Your task to perform on an android device: open app "Microsoft Authenticator" (install if not already installed) and enter user name: "Cornell@yahoo.com" and password: "bothersome" Image 0: 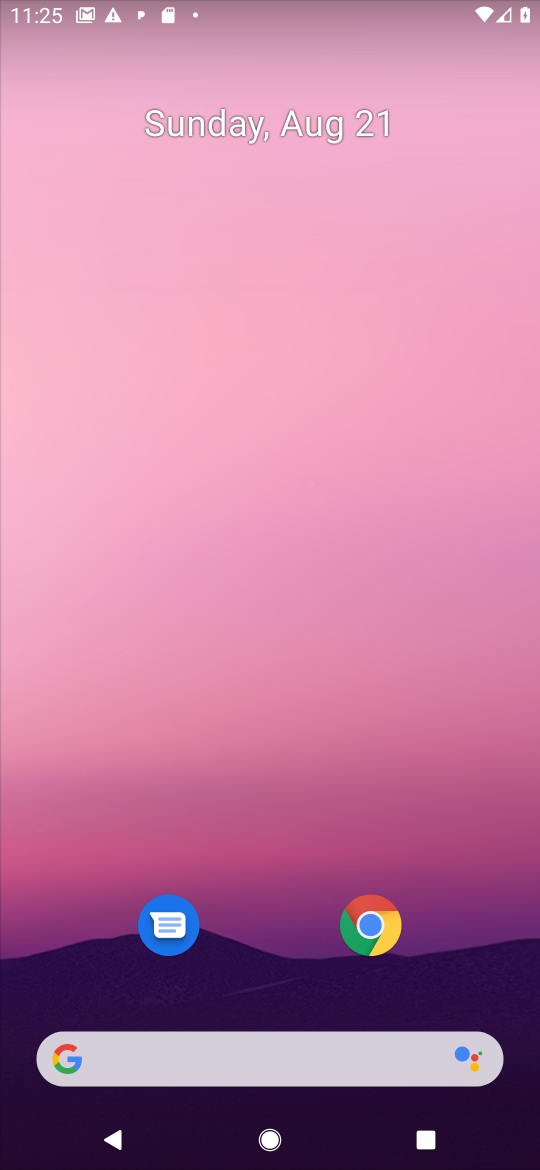
Step 0: drag from (251, 997) to (457, 159)
Your task to perform on an android device: open app "Microsoft Authenticator" (install if not already installed) and enter user name: "Cornell@yahoo.com" and password: "bothersome" Image 1: 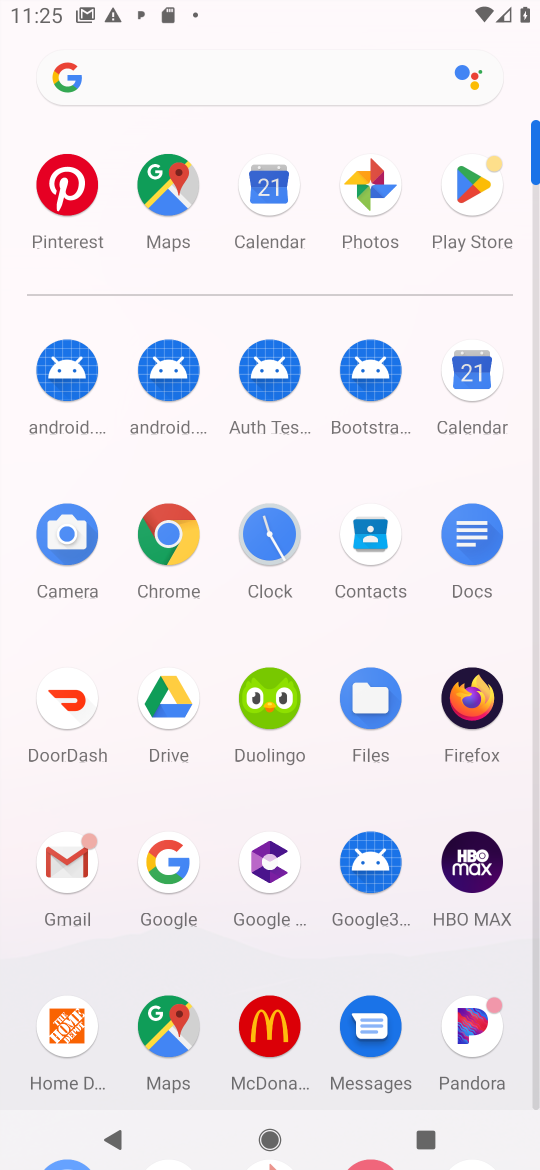
Step 1: click (457, 186)
Your task to perform on an android device: open app "Microsoft Authenticator" (install if not already installed) and enter user name: "Cornell@yahoo.com" and password: "bothersome" Image 2: 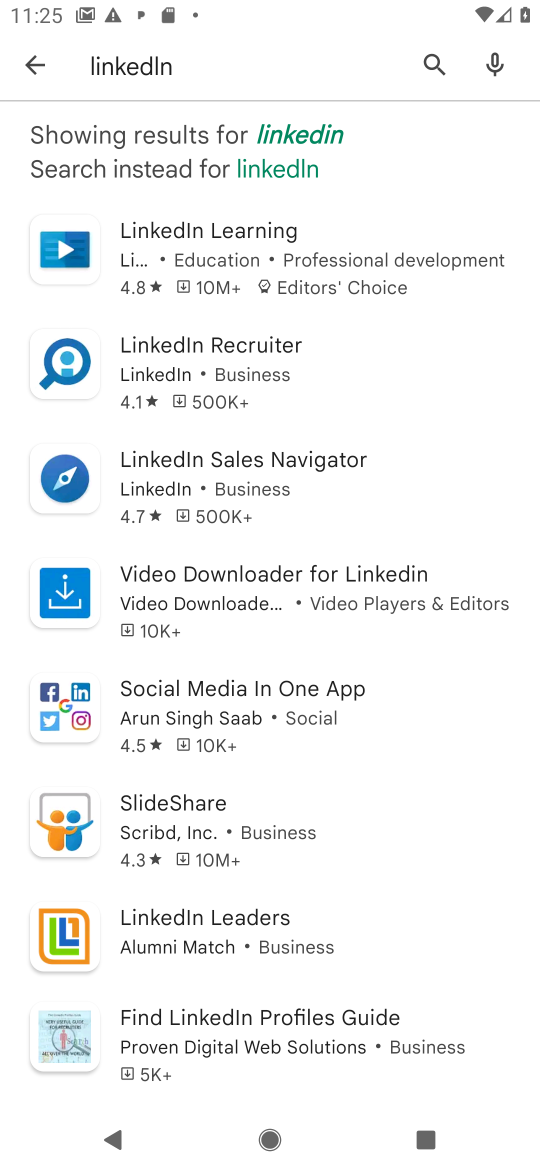
Step 2: click (415, 54)
Your task to perform on an android device: open app "Microsoft Authenticator" (install if not already installed) and enter user name: "Cornell@yahoo.com" and password: "bothersome" Image 3: 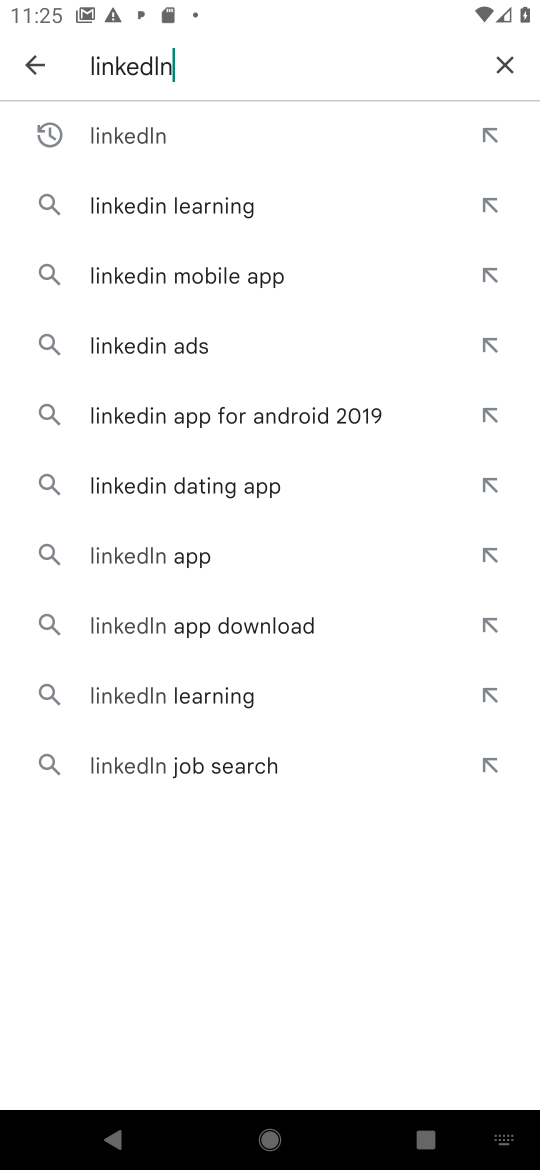
Step 3: click (507, 60)
Your task to perform on an android device: open app "Microsoft Authenticator" (install if not already installed) and enter user name: "Cornell@yahoo.com" and password: "bothersome" Image 4: 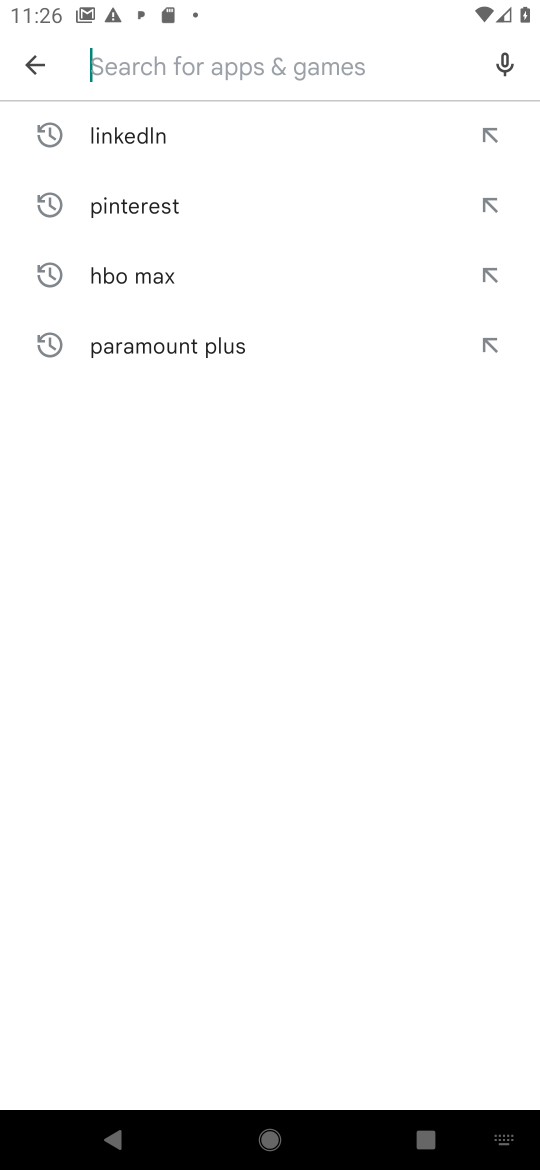
Step 4: click (242, 75)
Your task to perform on an android device: open app "Microsoft Authenticator" (install if not already installed) and enter user name: "Cornell@yahoo.com" and password: "bothersome" Image 5: 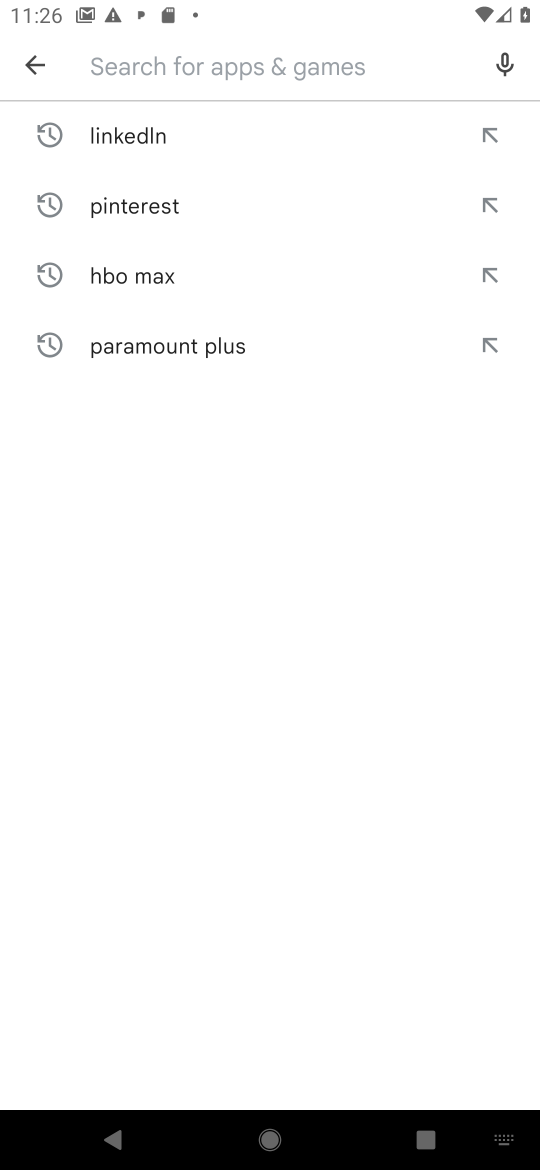
Step 5: type "Microsoft Authenticator"
Your task to perform on an android device: open app "Microsoft Authenticator" (install if not already installed) and enter user name: "Cornell@yahoo.com" and password: "bothersome" Image 6: 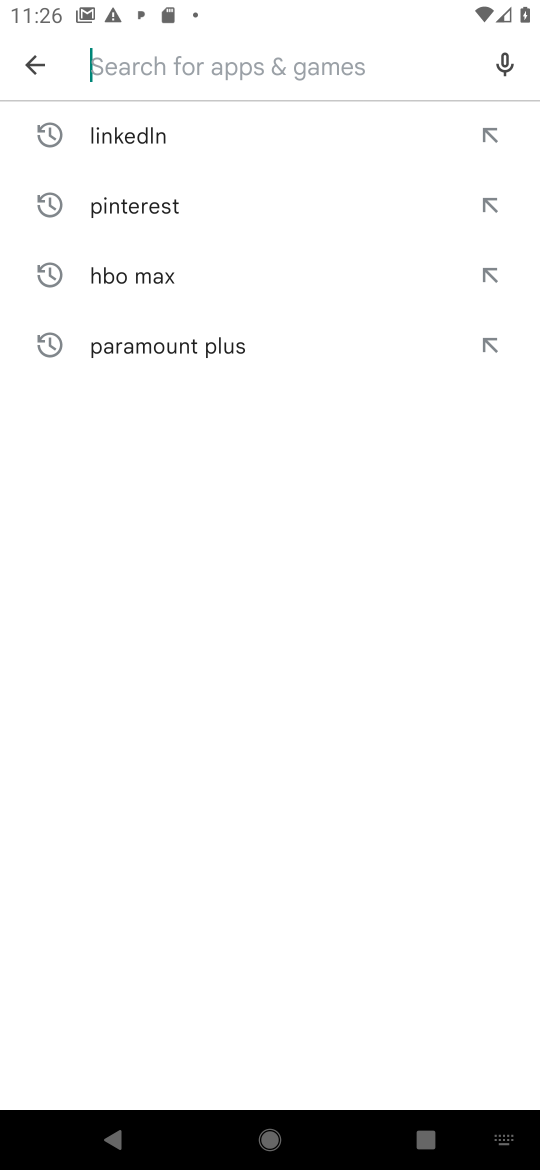
Step 6: click (261, 721)
Your task to perform on an android device: open app "Microsoft Authenticator" (install if not already installed) and enter user name: "Cornell@yahoo.com" and password: "bothersome" Image 7: 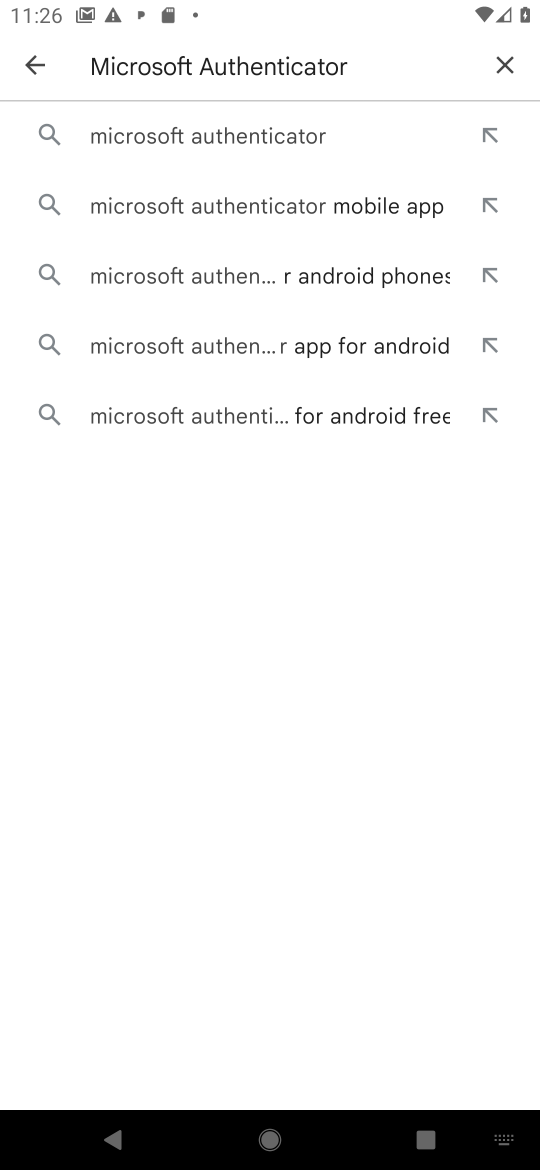
Step 7: click (233, 127)
Your task to perform on an android device: open app "Microsoft Authenticator" (install if not already installed) and enter user name: "Cornell@yahoo.com" and password: "bothersome" Image 8: 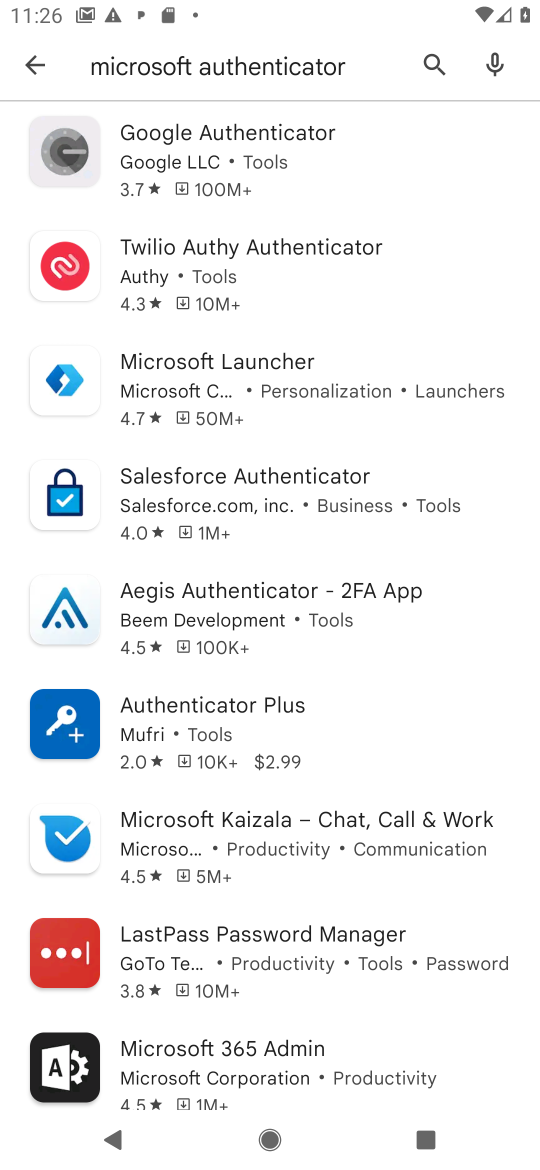
Step 8: task complete